Your task to perform on an android device: turn off data saver in the chrome app Image 0: 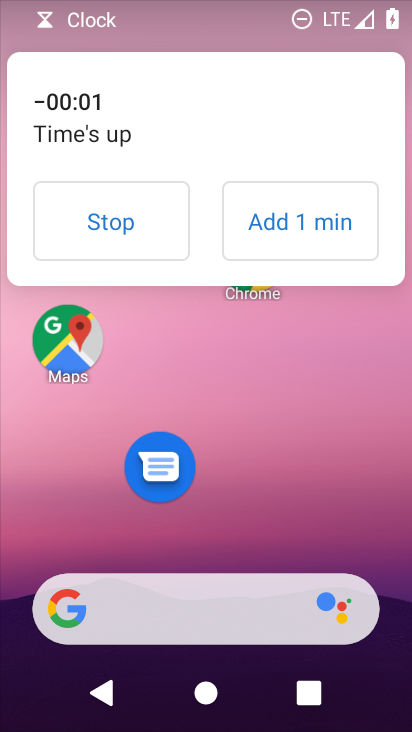
Step 0: click (202, 240)
Your task to perform on an android device: turn off data saver in the chrome app Image 1: 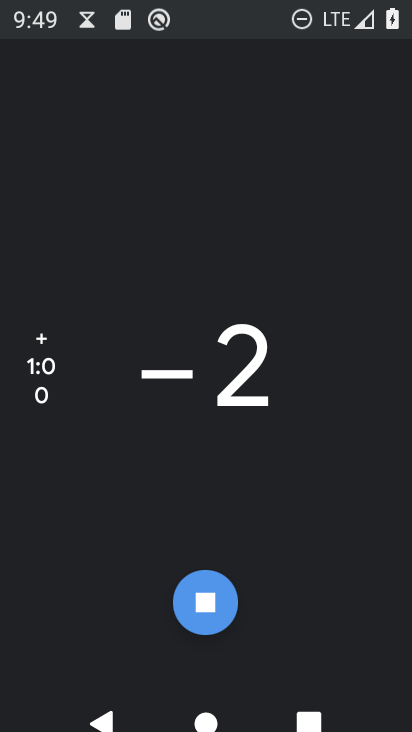
Step 1: click (169, 221)
Your task to perform on an android device: turn off data saver in the chrome app Image 2: 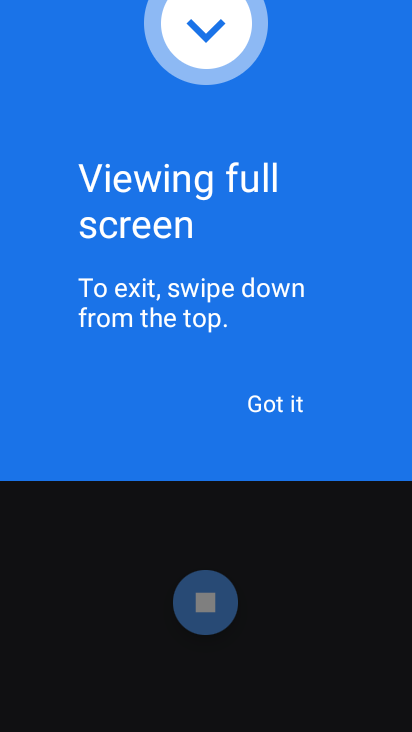
Step 2: click (205, 609)
Your task to perform on an android device: turn off data saver in the chrome app Image 3: 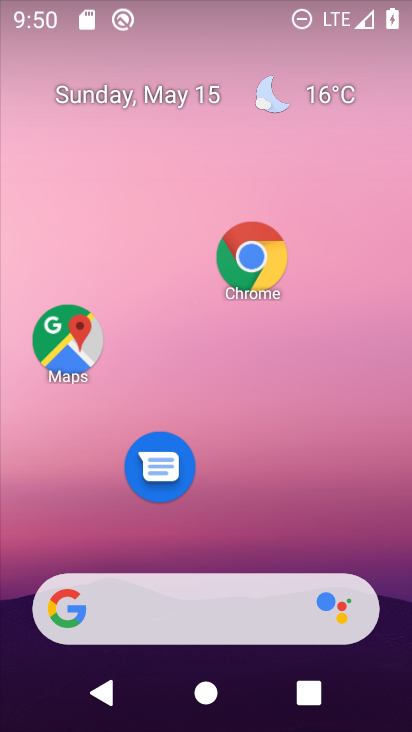
Step 3: click (252, 251)
Your task to perform on an android device: turn off data saver in the chrome app Image 4: 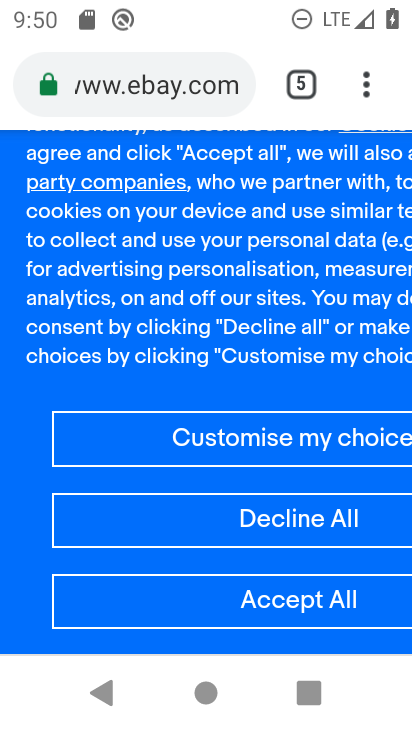
Step 4: click (372, 85)
Your task to perform on an android device: turn off data saver in the chrome app Image 5: 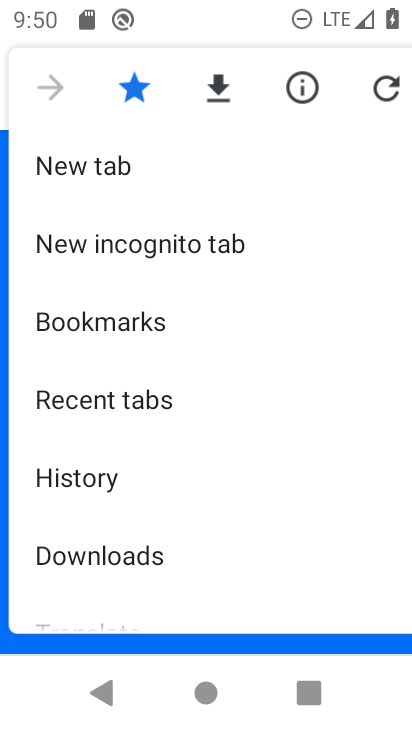
Step 5: drag from (165, 597) to (164, 165)
Your task to perform on an android device: turn off data saver in the chrome app Image 6: 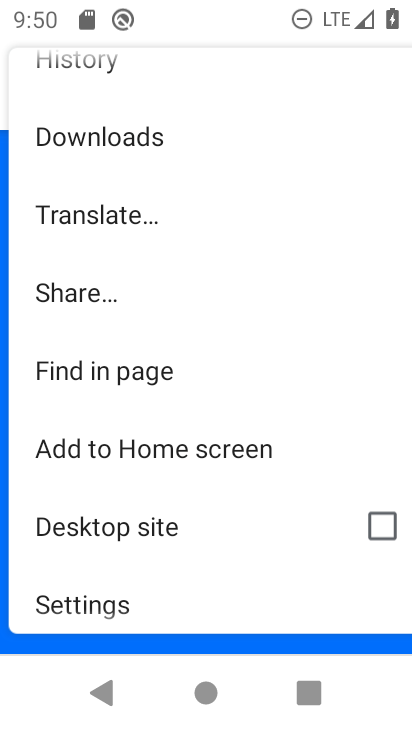
Step 6: click (95, 609)
Your task to perform on an android device: turn off data saver in the chrome app Image 7: 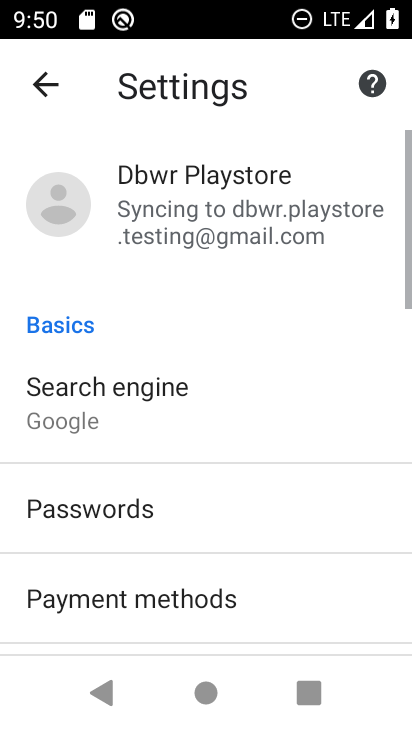
Step 7: drag from (95, 609) to (174, 106)
Your task to perform on an android device: turn off data saver in the chrome app Image 8: 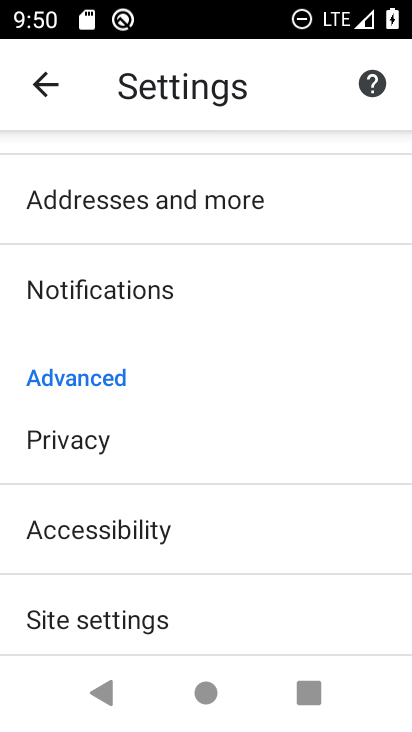
Step 8: drag from (138, 631) to (189, 179)
Your task to perform on an android device: turn off data saver in the chrome app Image 9: 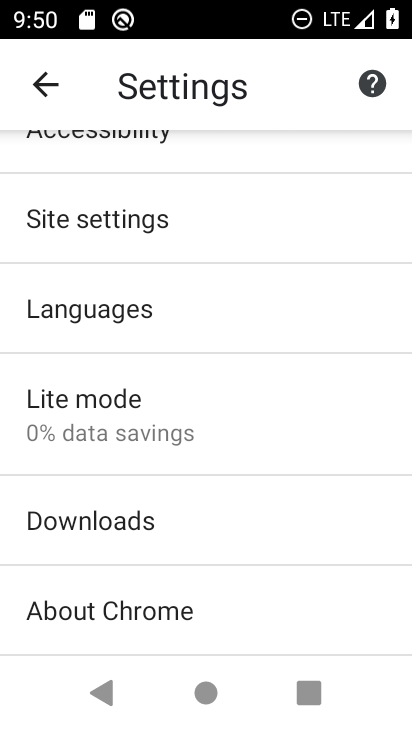
Step 9: click (157, 422)
Your task to perform on an android device: turn off data saver in the chrome app Image 10: 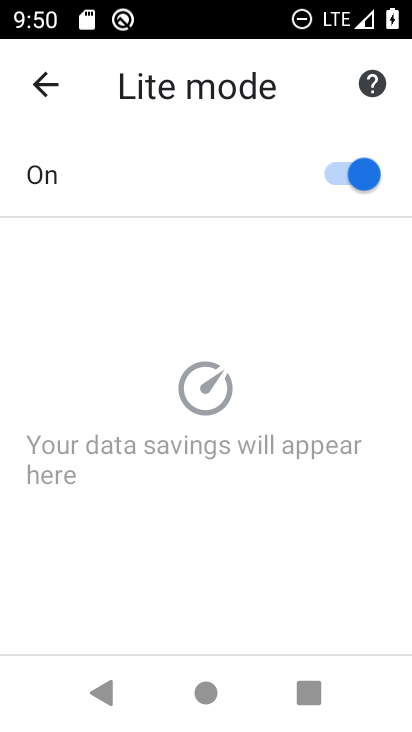
Step 10: click (341, 172)
Your task to perform on an android device: turn off data saver in the chrome app Image 11: 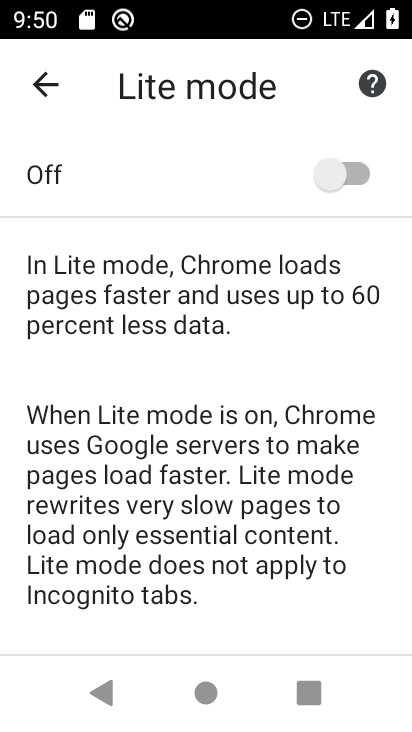
Step 11: task complete